Your task to perform on an android device: Open settings Image 0: 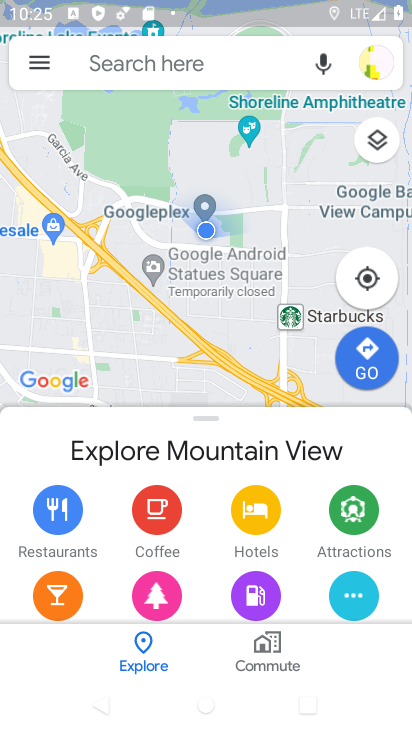
Step 0: press home button
Your task to perform on an android device: Open settings Image 1: 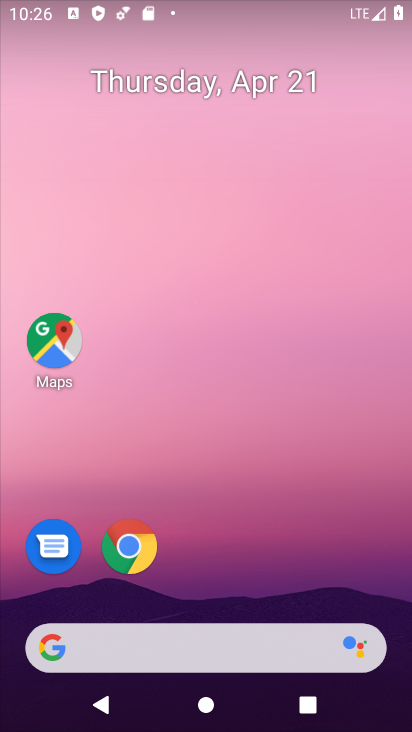
Step 1: drag from (346, 601) to (322, 90)
Your task to perform on an android device: Open settings Image 2: 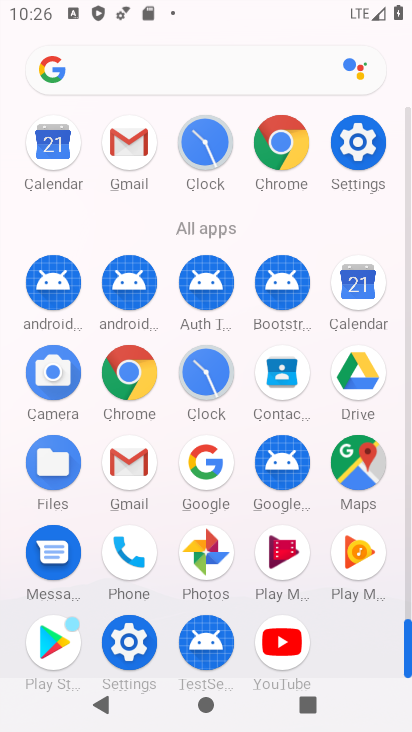
Step 2: click (130, 642)
Your task to perform on an android device: Open settings Image 3: 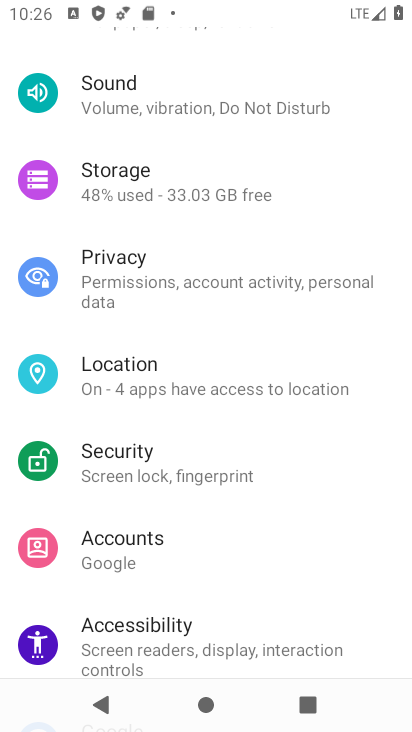
Step 3: task complete